Your task to perform on an android device: Go to wifi settings Image 0: 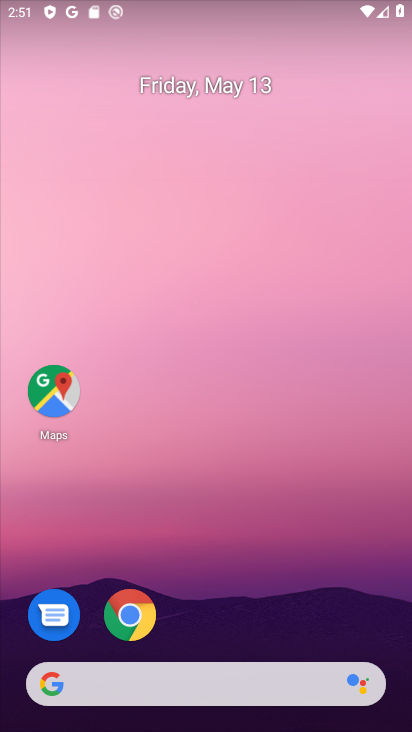
Step 0: drag from (199, 696) to (249, 228)
Your task to perform on an android device: Go to wifi settings Image 1: 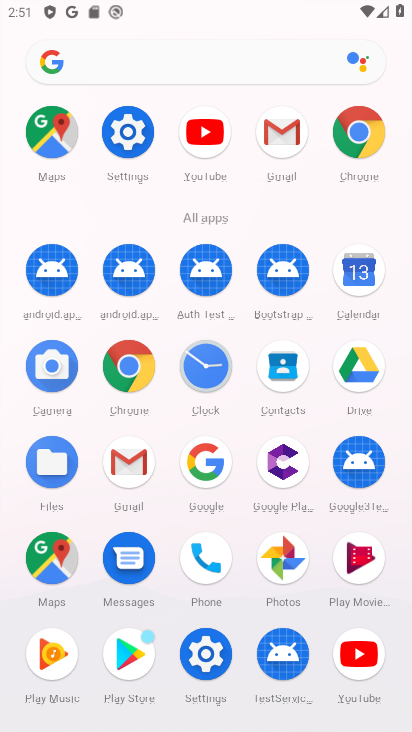
Step 1: click (134, 132)
Your task to perform on an android device: Go to wifi settings Image 2: 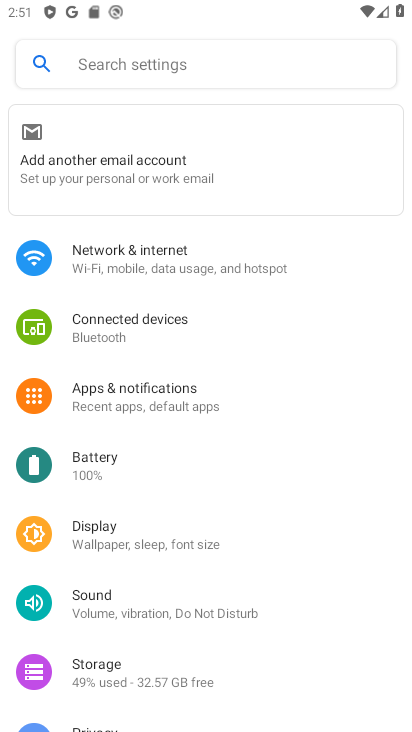
Step 2: click (190, 250)
Your task to perform on an android device: Go to wifi settings Image 3: 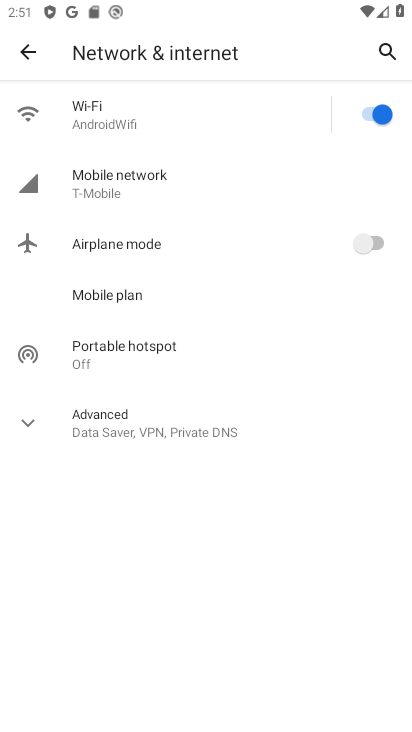
Step 3: click (119, 125)
Your task to perform on an android device: Go to wifi settings Image 4: 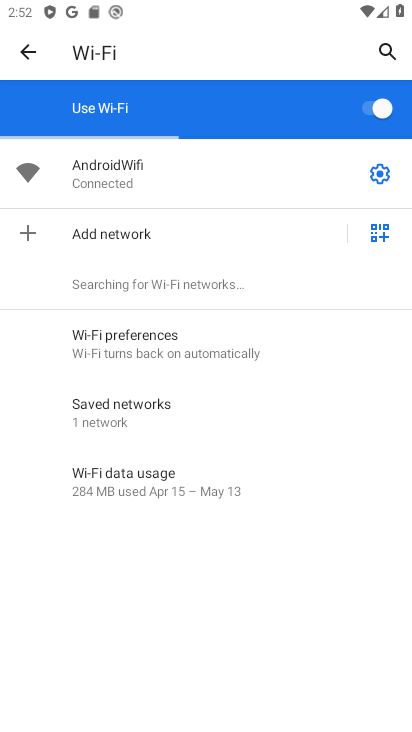
Step 4: task complete